Your task to perform on an android device: open a new tab in the chrome app Image 0: 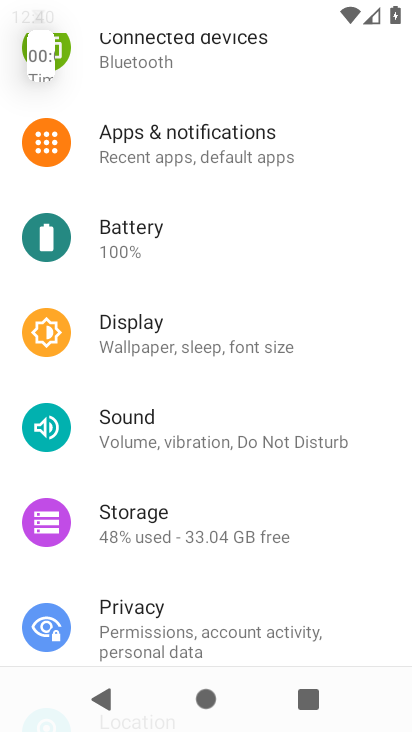
Step 0: press home button
Your task to perform on an android device: open a new tab in the chrome app Image 1: 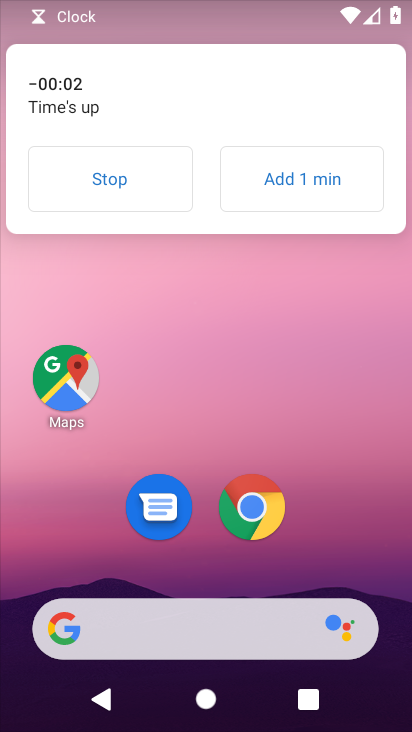
Step 1: click (86, 170)
Your task to perform on an android device: open a new tab in the chrome app Image 2: 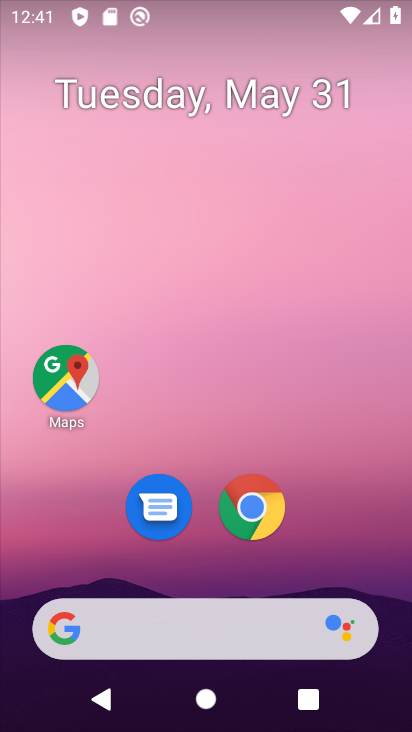
Step 2: click (251, 499)
Your task to perform on an android device: open a new tab in the chrome app Image 3: 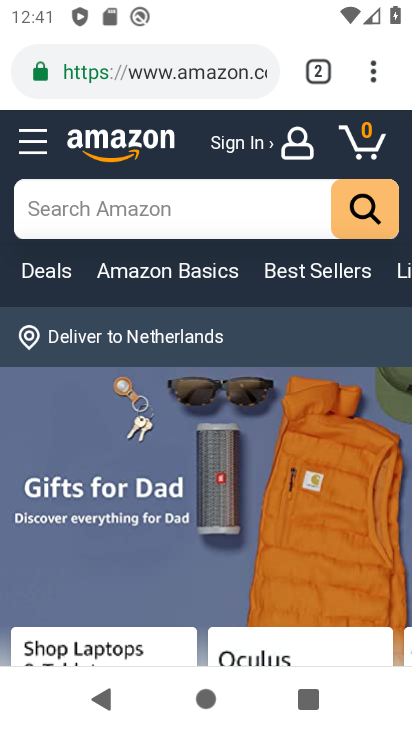
Step 3: task complete